Your task to perform on an android device: set default search engine in the chrome app Image 0: 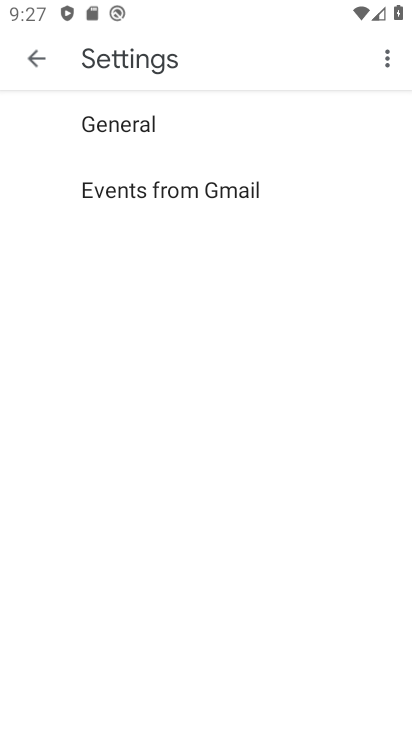
Step 0: drag from (262, 573) to (322, 258)
Your task to perform on an android device: set default search engine in the chrome app Image 1: 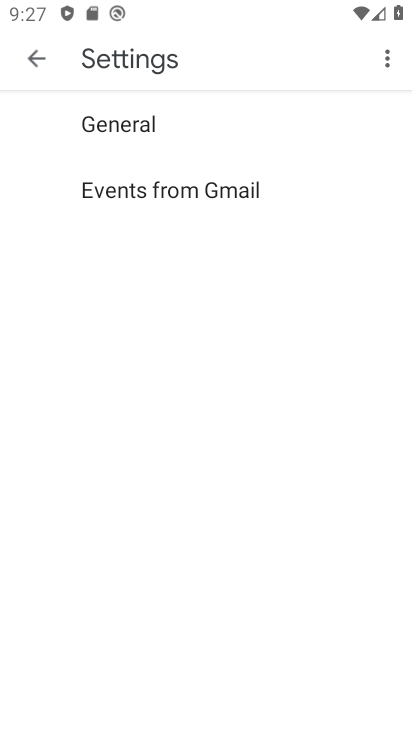
Step 1: press home button
Your task to perform on an android device: set default search engine in the chrome app Image 2: 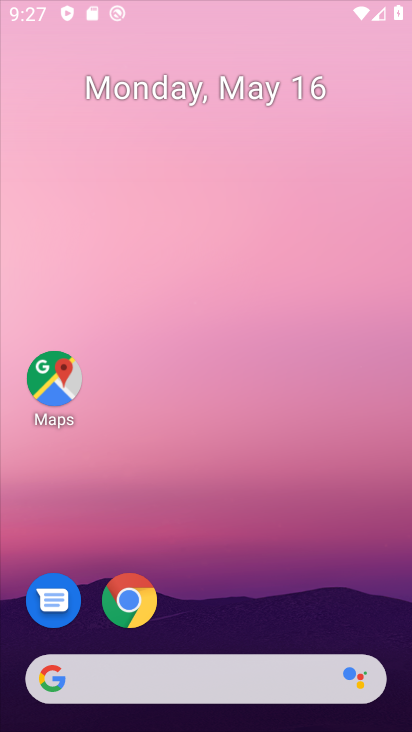
Step 2: drag from (261, 607) to (298, 238)
Your task to perform on an android device: set default search engine in the chrome app Image 3: 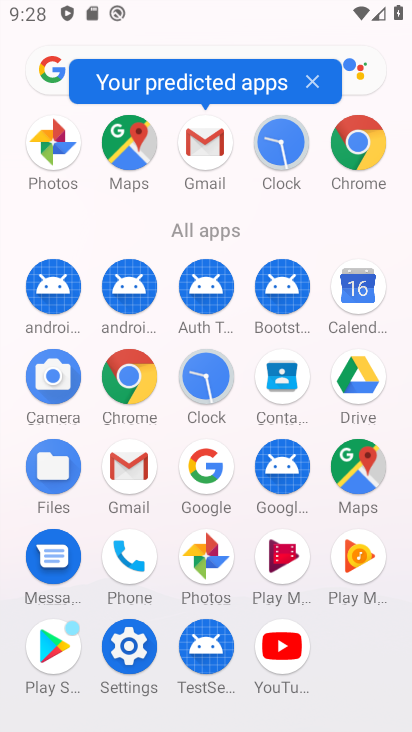
Step 3: click (117, 371)
Your task to perform on an android device: set default search engine in the chrome app Image 4: 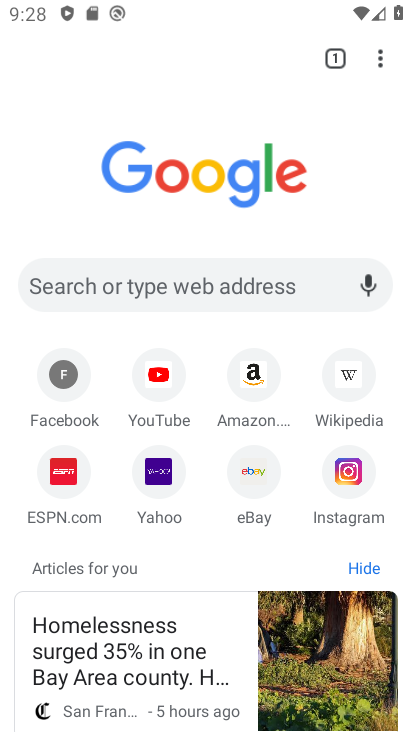
Step 4: click (377, 61)
Your task to perform on an android device: set default search engine in the chrome app Image 5: 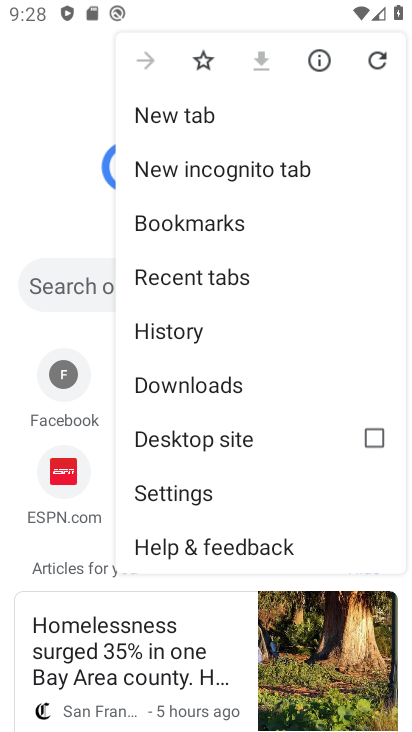
Step 5: click (197, 483)
Your task to perform on an android device: set default search engine in the chrome app Image 6: 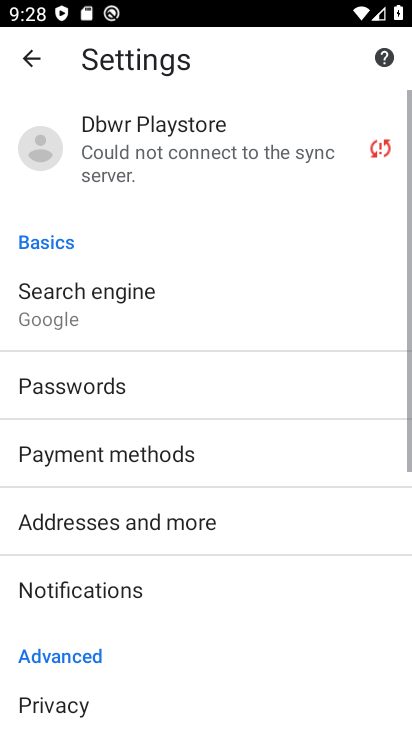
Step 6: click (148, 306)
Your task to perform on an android device: set default search engine in the chrome app Image 7: 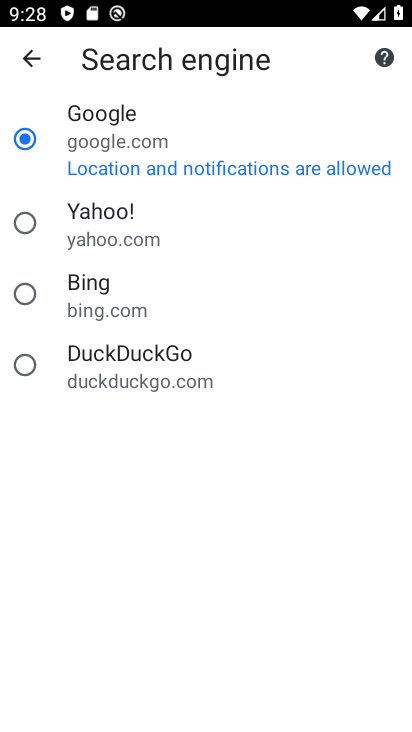
Step 7: task complete